Your task to perform on an android device: Go to wifi settings Image 0: 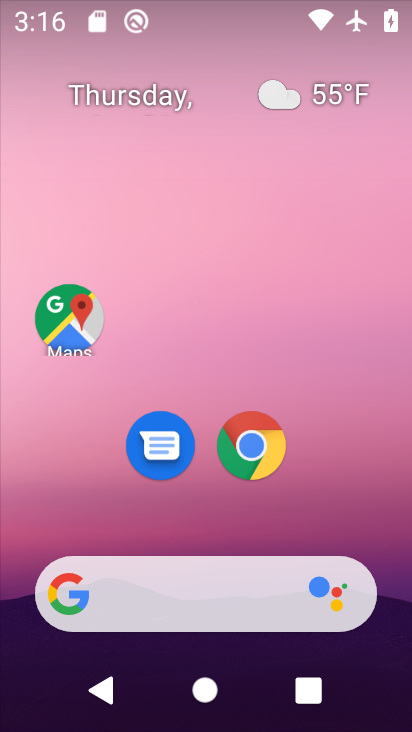
Step 0: press home button
Your task to perform on an android device: Go to wifi settings Image 1: 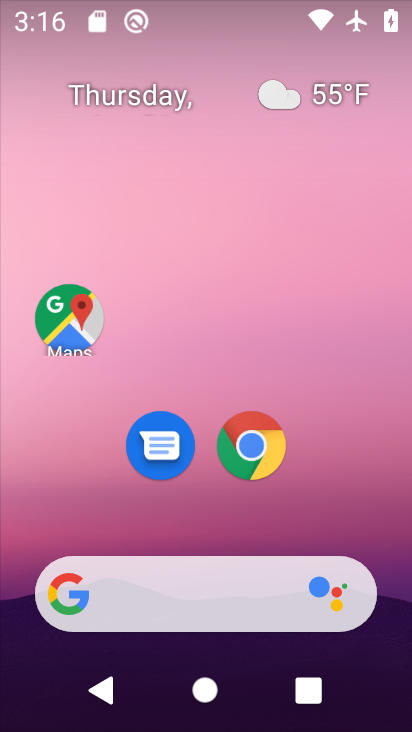
Step 1: drag from (329, 515) to (330, 186)
Your task to perform on an android device: Go to wifi settings Image 2: 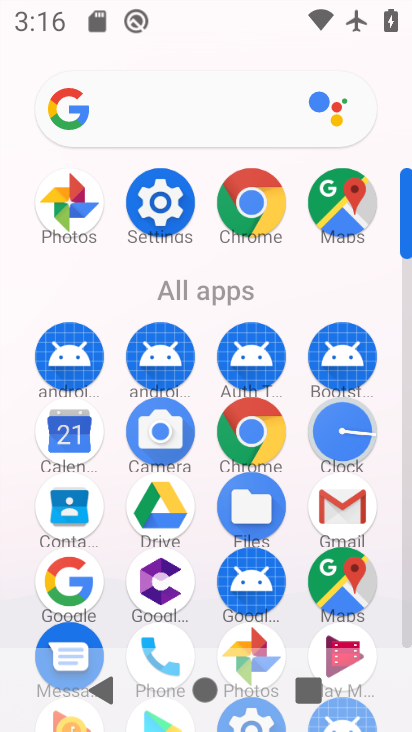
Step 2: click (177, 219)
Your task to perform on an android device: Go to wifi settings Image 3: 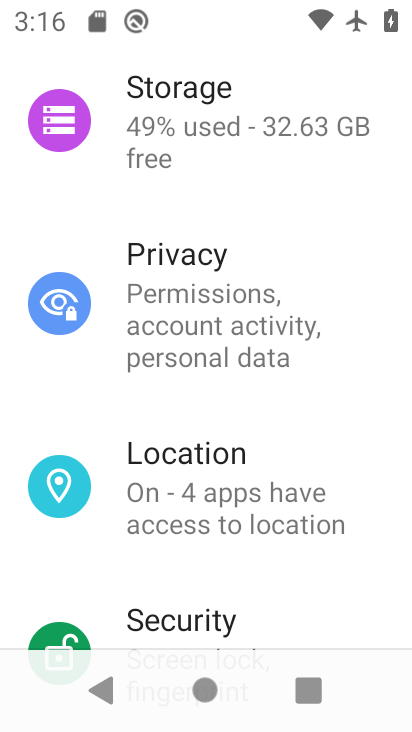
Step 3: drag from (291, 193) to (218, 624)
Your task to perform on an android device: Go to wifi settings Image 4: 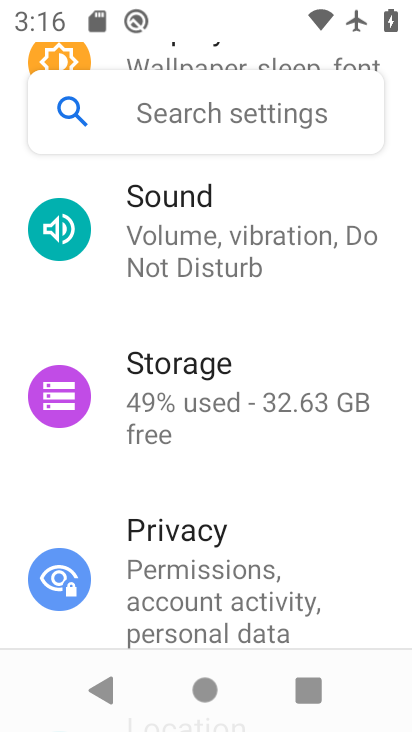
Step 4: drag from (285, 271) to (270, 614)
Your task to perform on an android device: Go to wifi settings Image 5: 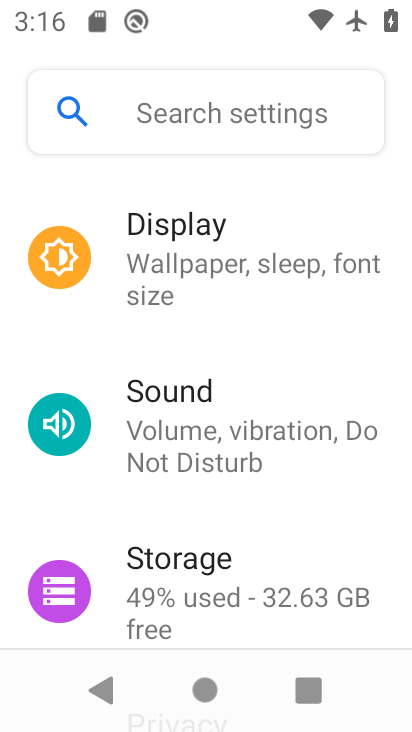
Step 5: drag from (334, 250) to (325, 609)
Your task to perform on an android device: Go to wifi settings Image 6: 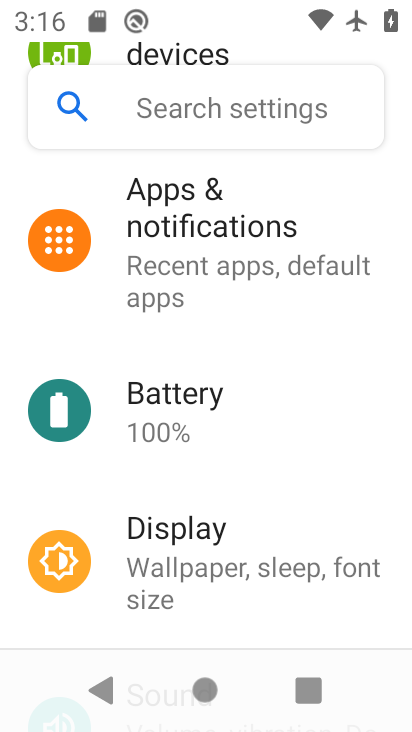
Step 6: drag from (280, 296) to (284, 594)
Your task to perform on an android device: Go to wifi settings Image 7: 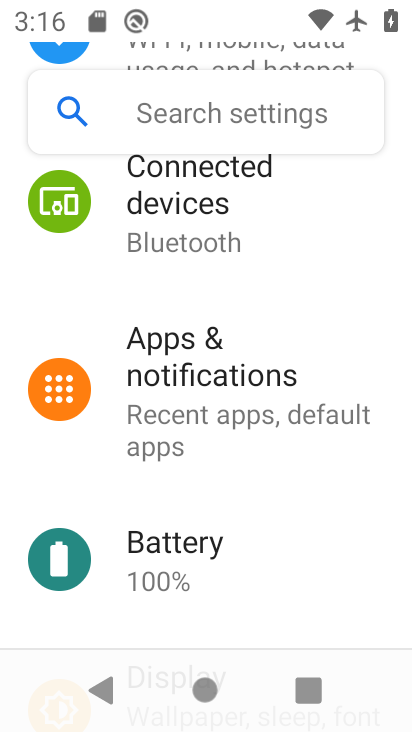
Step 7: drag from (214, 214) to (219, 582)
Your task to perform on an android device: Go to wifi settings Image 8: 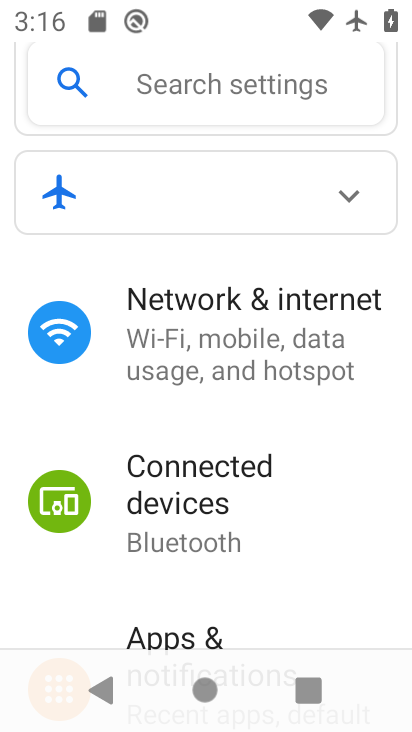
Step 8: click (221, 375)
Your task to perform on an android device: Go to wifi settings Image 9: 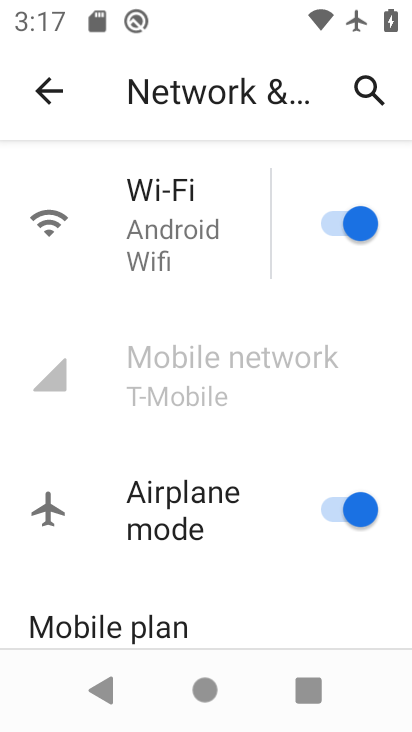
Step 9: task complete